Your task to perform on an android device: toggle notification dots Image 0: 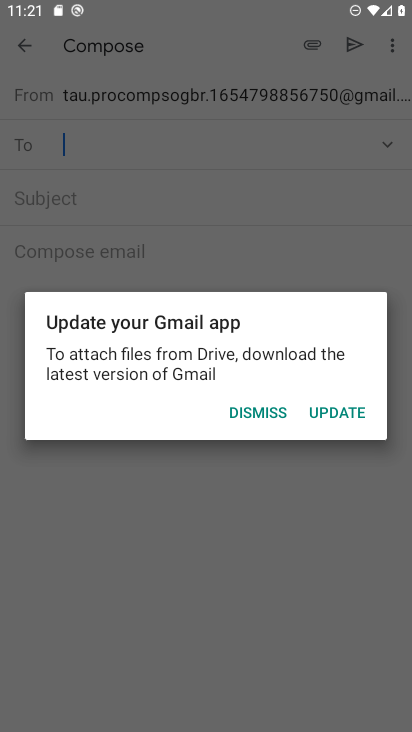
Step 0: press home button
Your task to perform on an android device: toggle notification dots Image 1: 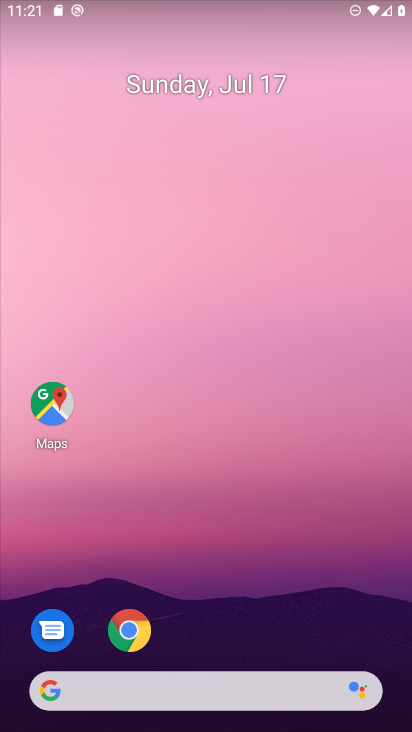
Step 1: drag from (179, 526) to (215, 204)
Your task to perform on an android device: toggle notification dots Image 2: 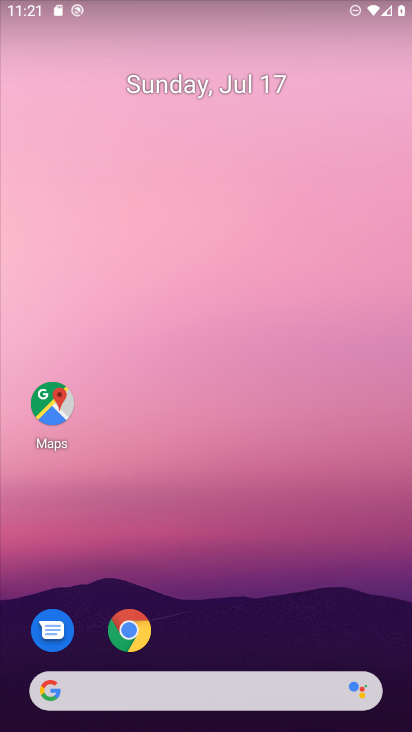
Step 2: drag from (208, 617) to (210, 1)
Your task to perform on an android device: toggle notification dots Image 3: 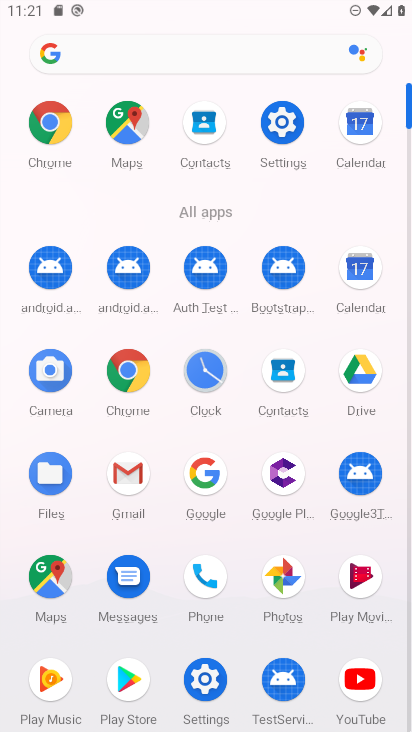
Step 3: click (278, 112)
Your task to perform on an android device: toggle notification dots Image 4: 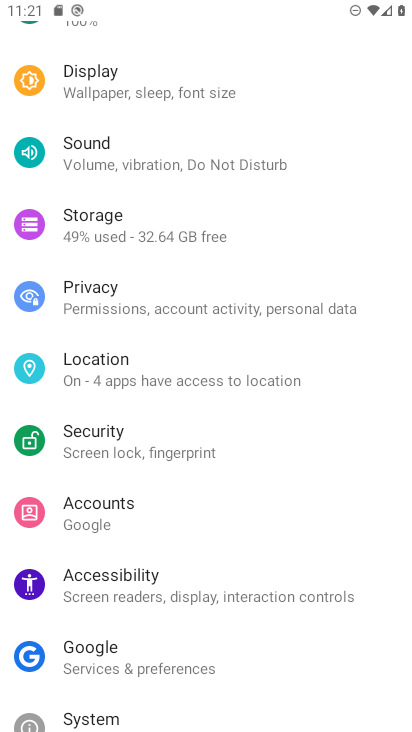
Step 4: drag from (205, 483) to (202, 586)
Your task to perform on an android device: toggle notification dots Image 5: 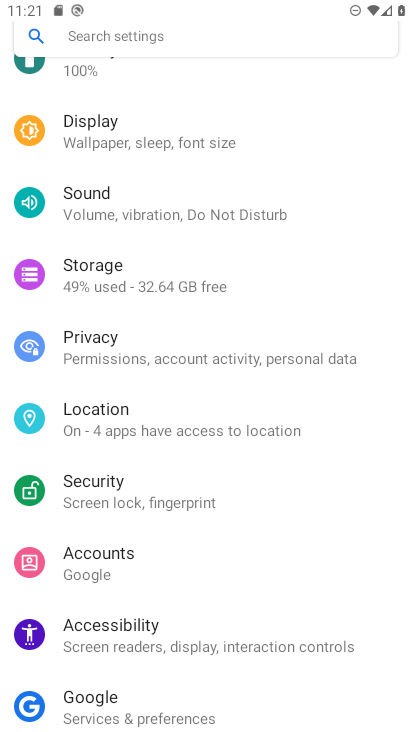
Step 5: drag from (115, 308) to (117, 560)
Your task to perform on an android device: toggle notification dots Image 6: 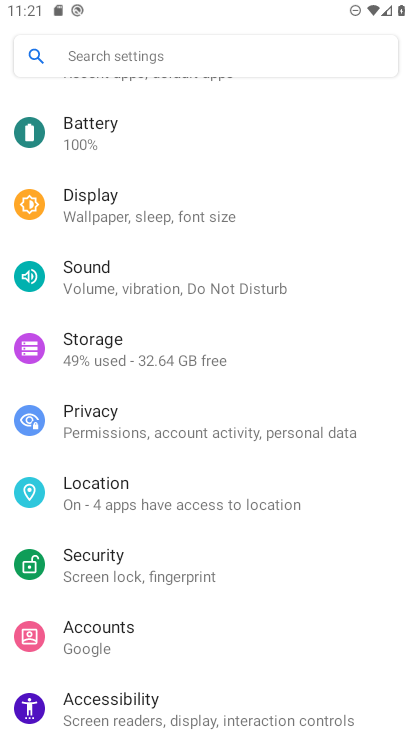
Step 6: drag from (158, 239) to (170, 486)
Your task to perform on an android device: toggle notification dots Image 7: 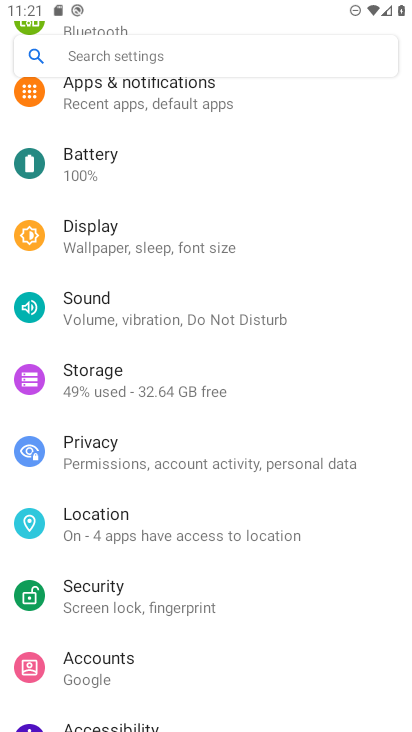
Step 7: click (138, 101)
Your task to perform on an android device: toggle notification dots Image 8: 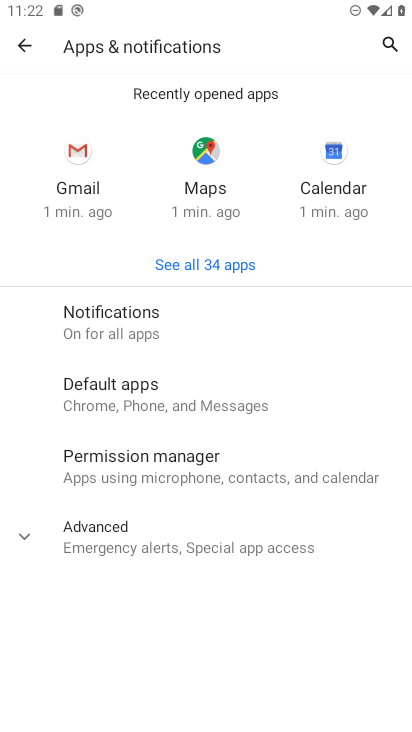
Step 8: click (100, 324)
Your task to perform on an android device: toggle notification dots Image 9: 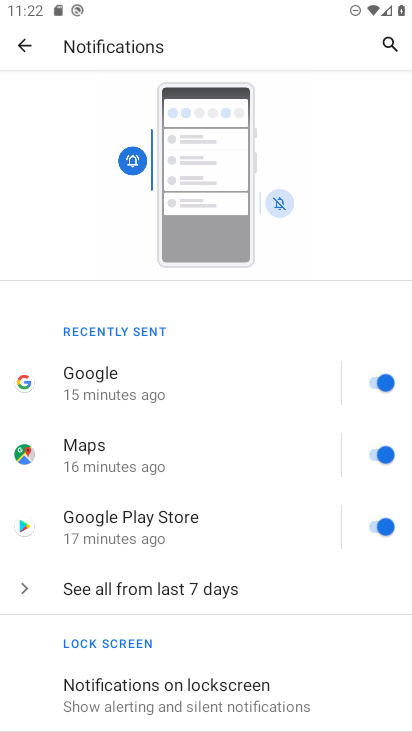
Step 9: drag from (277, 609) to (270, 303)
Your task to perform on an android device: toggle notification dots Image 10: 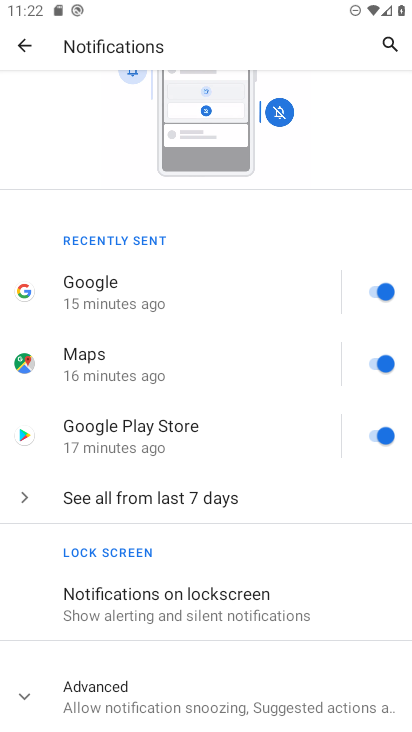
Step 10: click (160, 692)
Your task to perform on an android device: toggle notification dots Image 11: 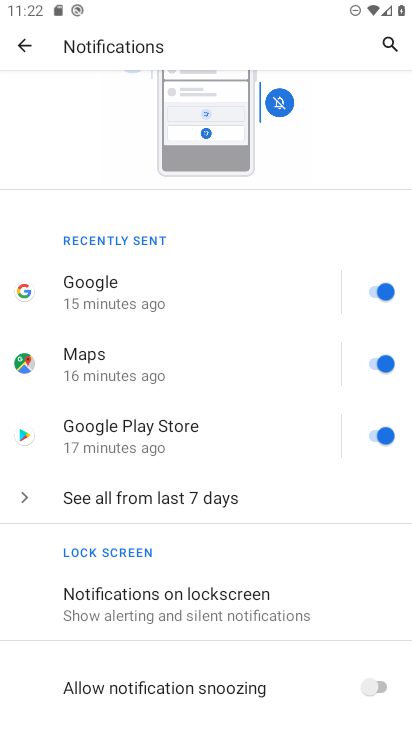
Step 11: drag from (212, 632) to (244, 404)
Your task to perform on an android device: toggle notification dots Image 12: 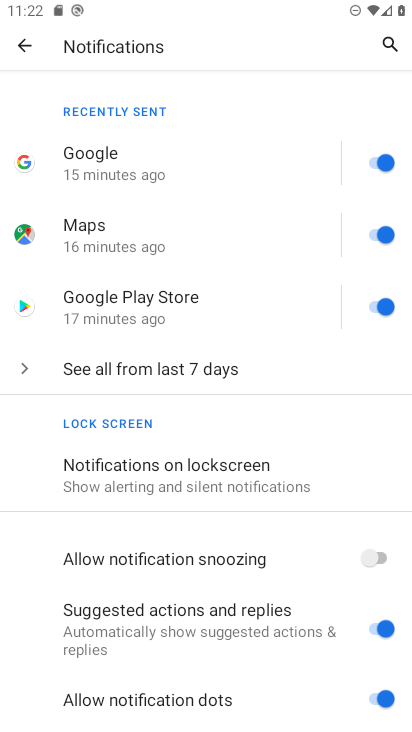
Step 12: click (381, 696)
Your task to perform on an android device: toggle notification dots Image 13: 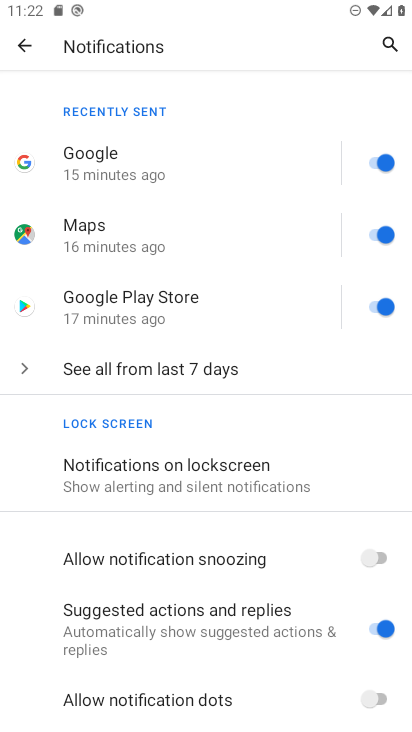
Step 13: task complete